Your task to perform on an android device: toggle location history Image 0: 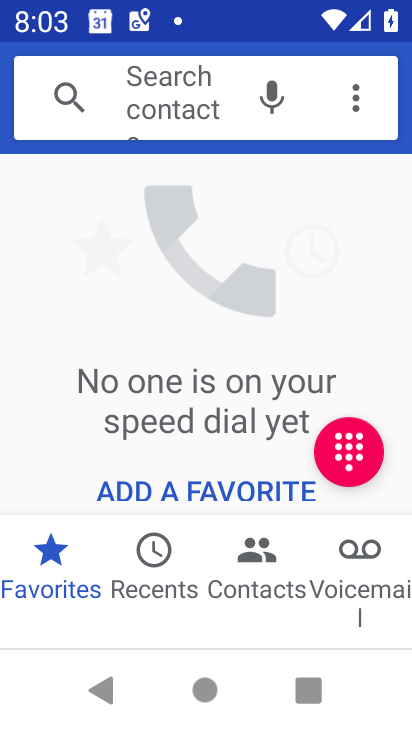
Step 0: press home button
Your task to perform on an android device: toggle location history Image 1: 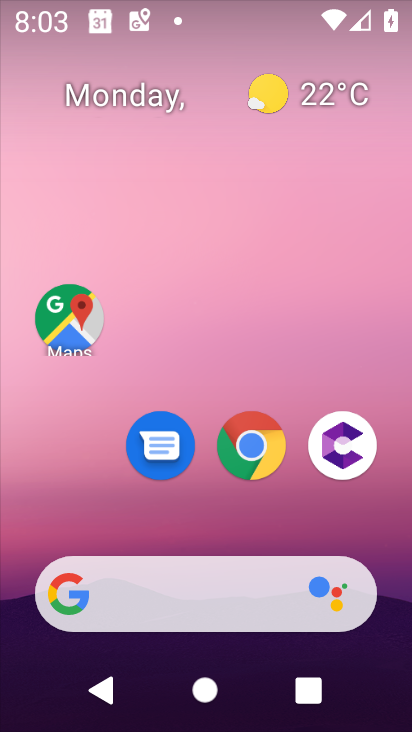
Step 1: drag from (171, 531) to (224, 159)
Your task to perform on an android device: toggle location history Image 2: 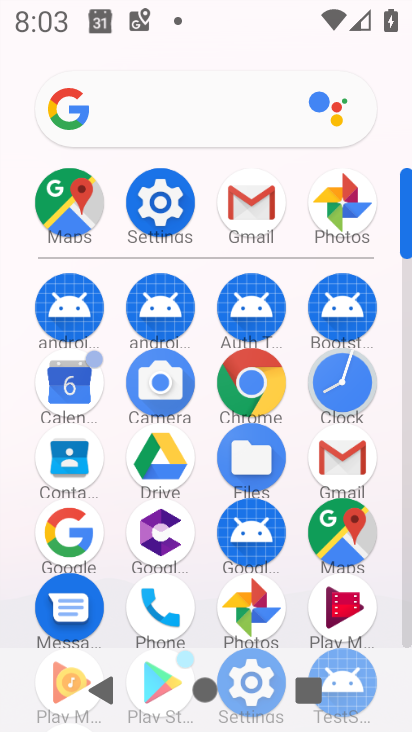
Step 2: click (152, 198)
Your task to perform on an android device: toggle location history Image 3: 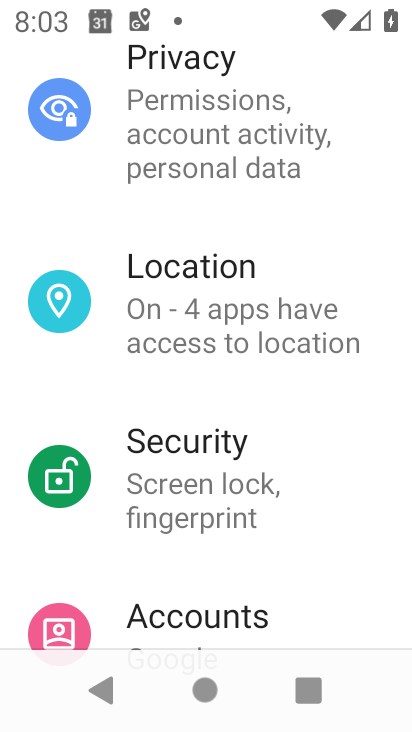
Step 3: click (218, 330)
Your task to perform on an android device: toggle location history Image 4: 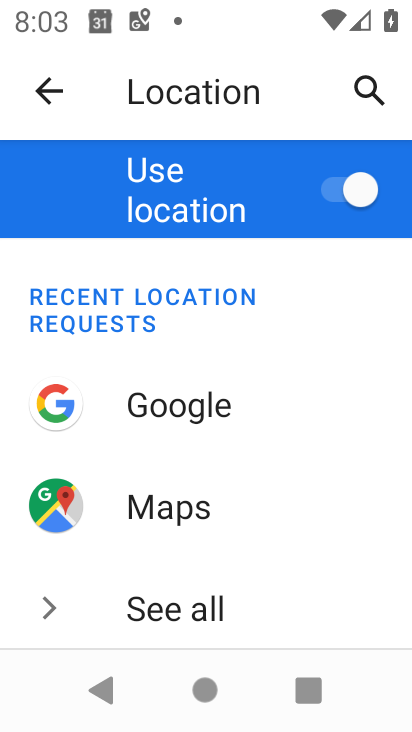
Step 4: drag from (344, 472) to (345, 1)
Your task to perform on an android device: toggle location history Image 5: 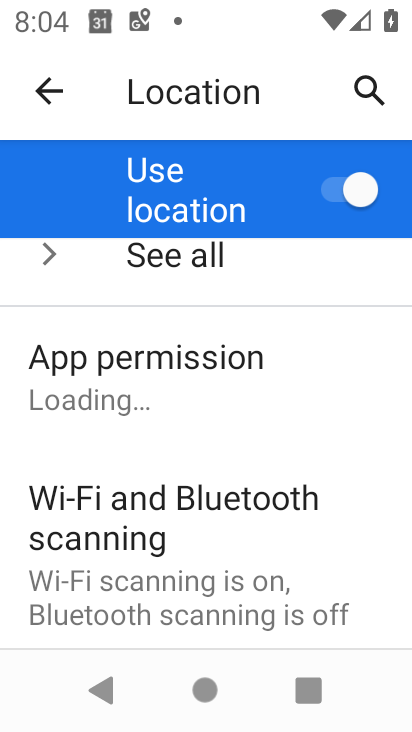
Step 5: drag from (272, 430) to (290, 150)
Your task to perform on an android device: toggle location history Image 6: 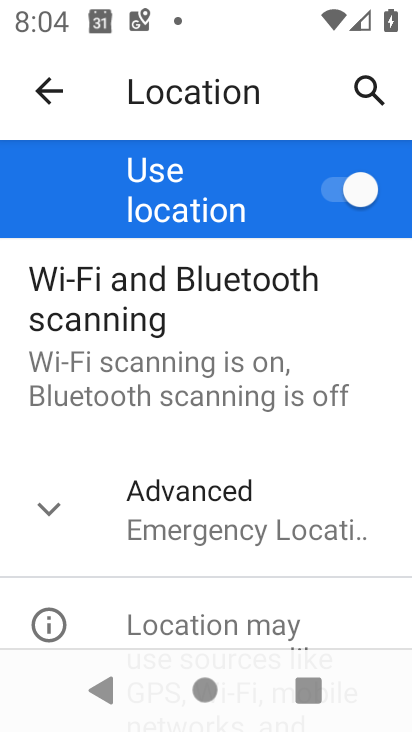
Step 6: click (191, 514)
Your task to perform on an android device: toggle location history Image 7: 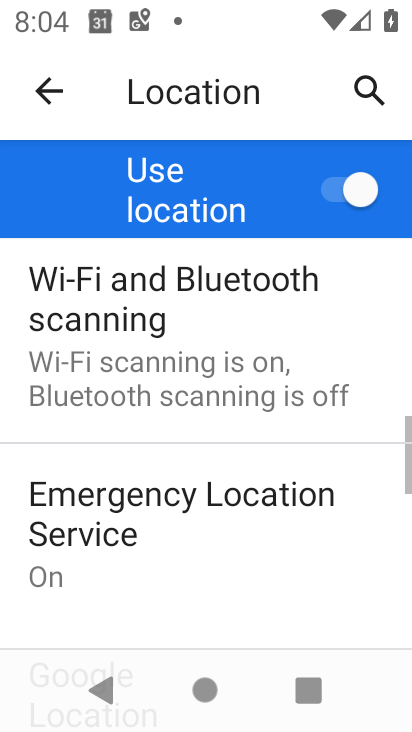
Step 7: drag from (231, 557) to (242, 195)
Your task to perform on an android device: toggle location history Image 8: 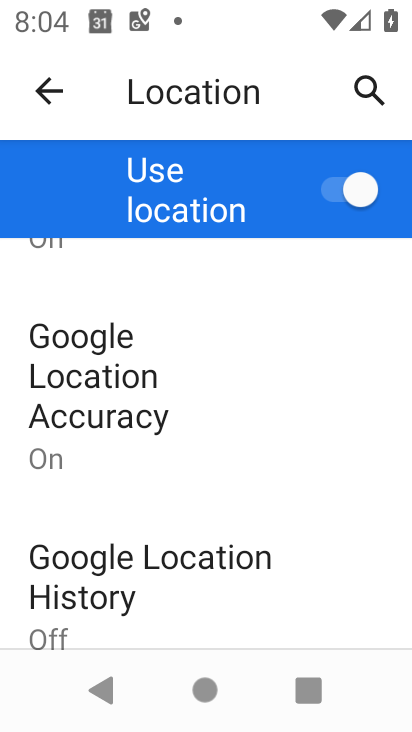
Step 8: click (243, 594)
Your task to perform on an android device: toggle location history Image 9: 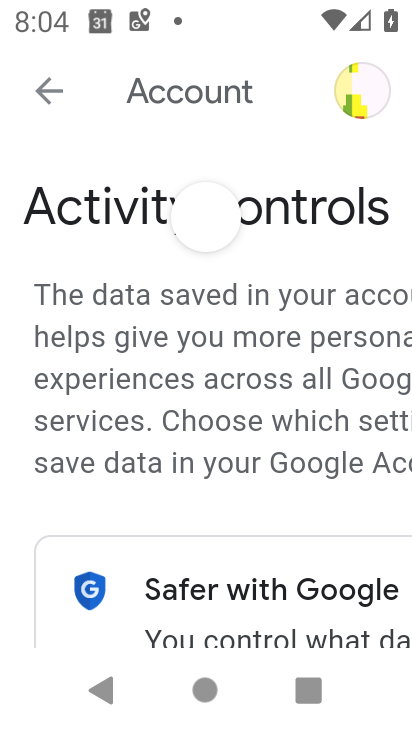
Step 9: drag from (345, 570) to (284, 11)
Your task to perform on an android device: toggle location history Image 10: 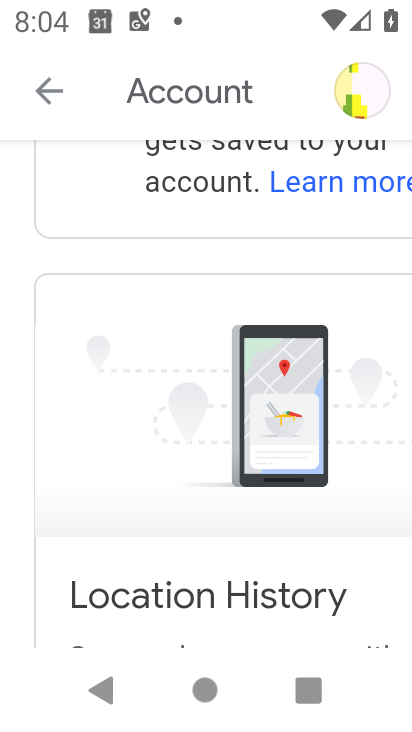
Step 10: drag from (381, 560) to (20, 448)
Your task to perform on an android device: toggle location history Image 11: 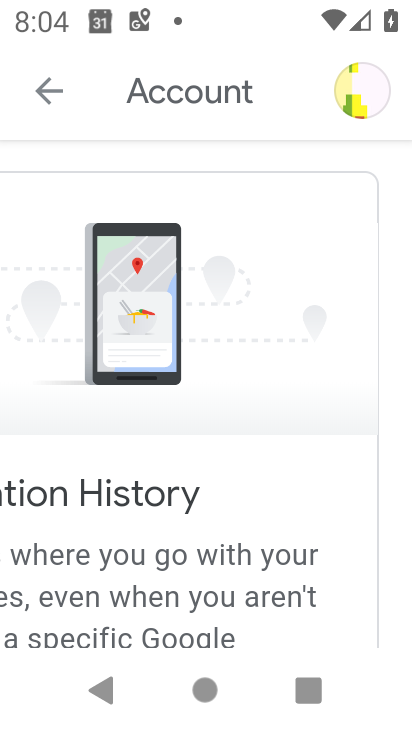
Step 11: drag from (309, 628) to (386, 30)
Your task to perform on an android device: toggle location history Image 12: 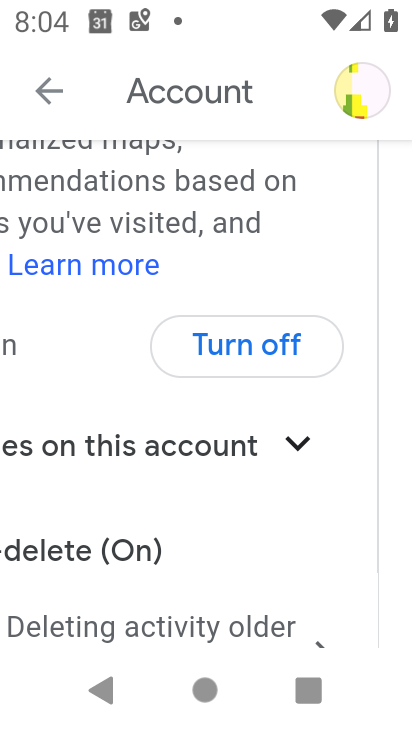
Step 12: drag from (285, 266) to (399, 262)
Your task to perform on an android device: toggle location history Image 13: 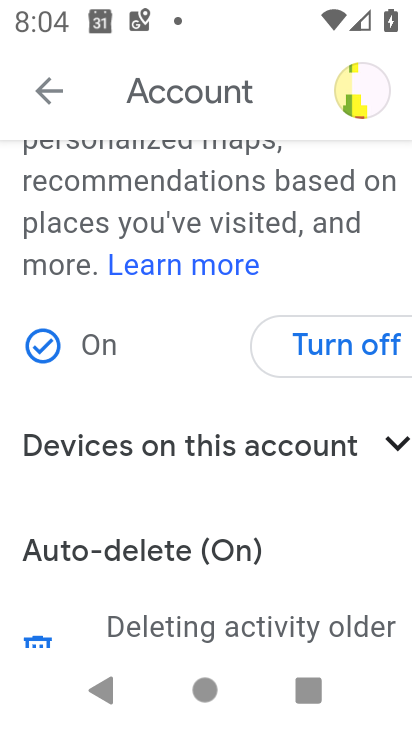
Step 13: click (323, 357)
Your task to perform on an android device: toggle location history Image 14: 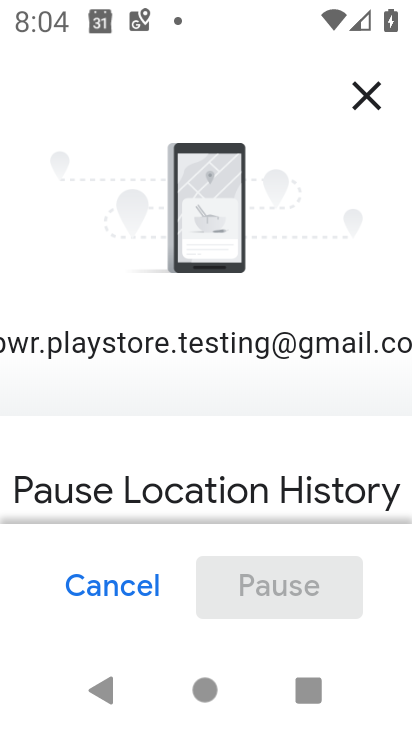
Step 14: click (270, 598)
Your task to perform on an android device: toggle location history Image 15: 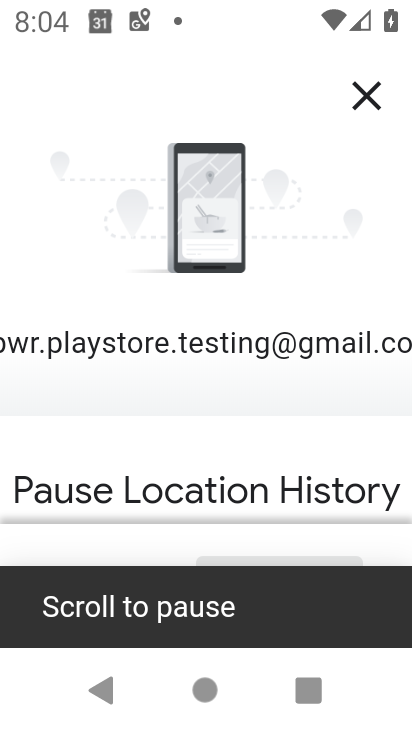
Step 15: click (260, 448)
Your task to perform on an android device: toggle location history Image 16: 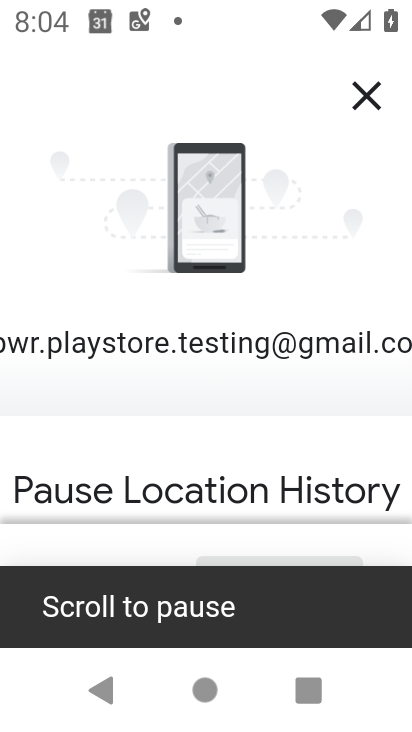
Step 16: drag from (259, 424) to (237, 19)
Your task to perform on an android device: toggle location history Image 17: 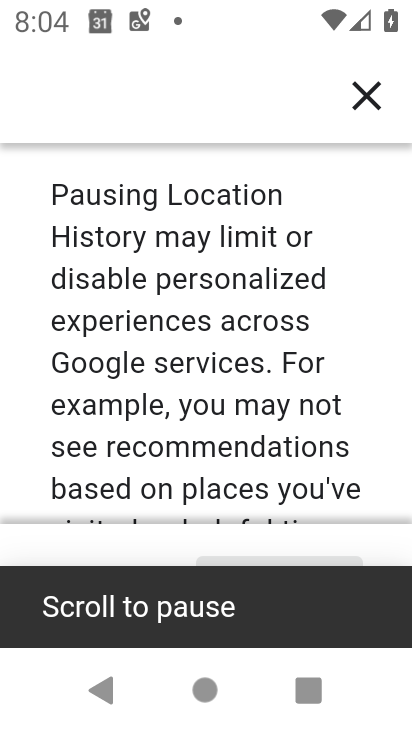
Step 17: drag from (366, 504) to (371, 15)
Your task to perform on an android device: toggle location history Image 18: 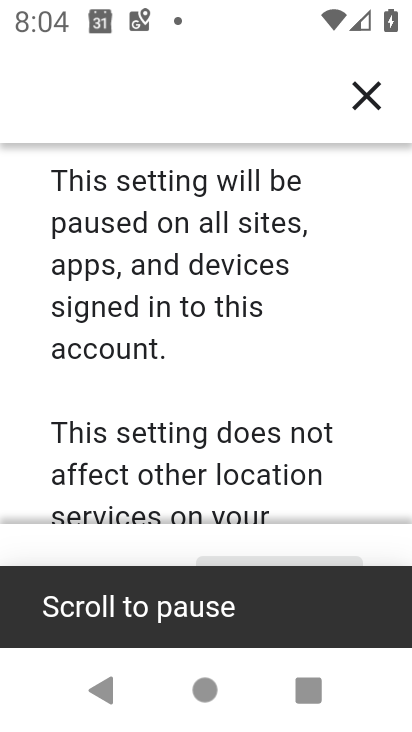
Step 18: drag from (382, 475) to (407, 233)
Your task to perform on an android device: toggle location history Image 19: 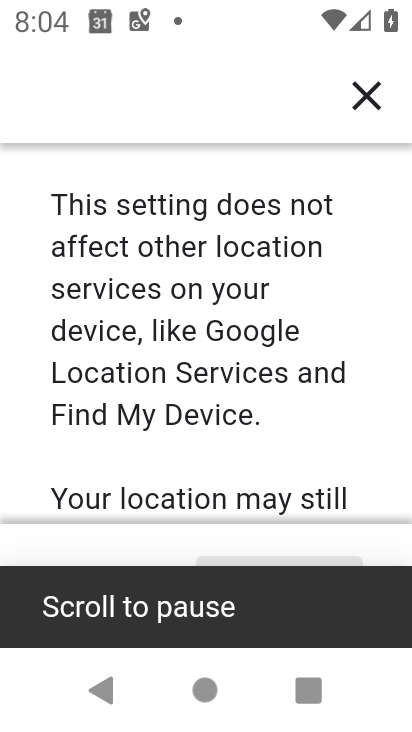
Step 19: drag from (391, 476) to (412, 34)
Your task to perform on an android device: toggle location history Image 20: 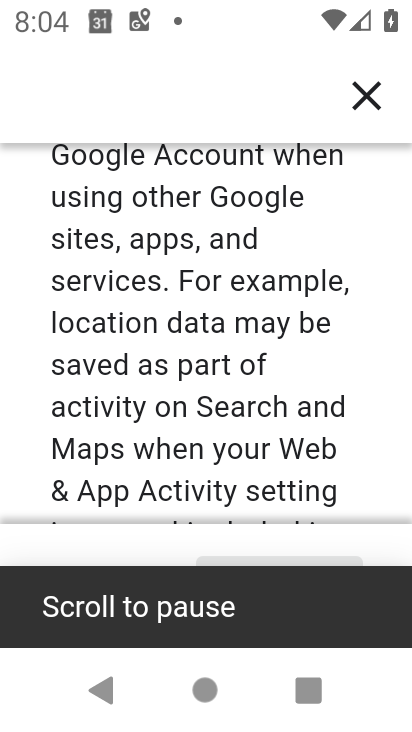
Step 20: drag from (375, 485) to (372, 15)
Your task to perform on an android device: toggle location history Image 21: 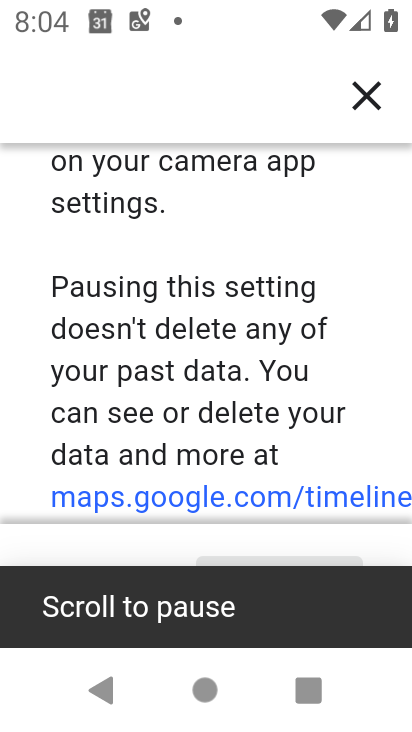
Step 21: drag from (382, 425) to (397, 0)
Your task to perform on an android device: toggle location history Image 22: 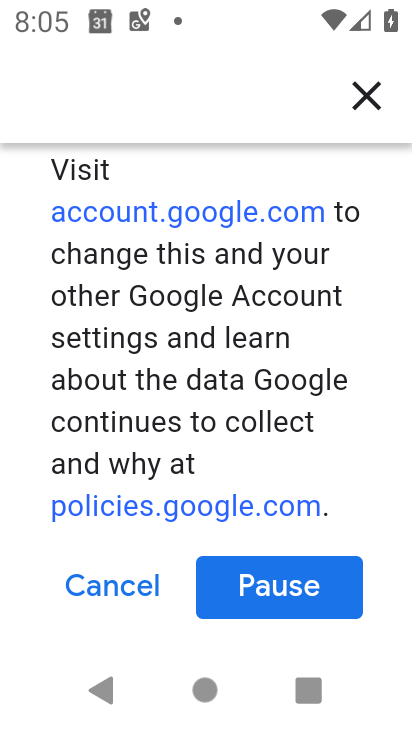
Step 22: click (238, 594)
Your task to perform on an android device: toggle location history Image 23: 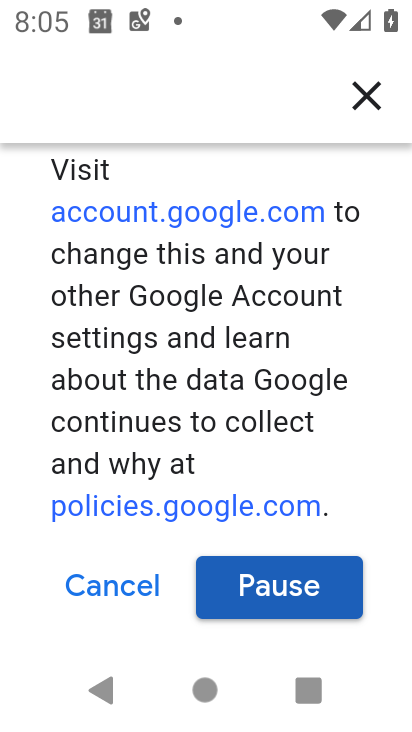
Step 23: click (241, 584)
Your task to perform on an android device: toggle location history Image 24: 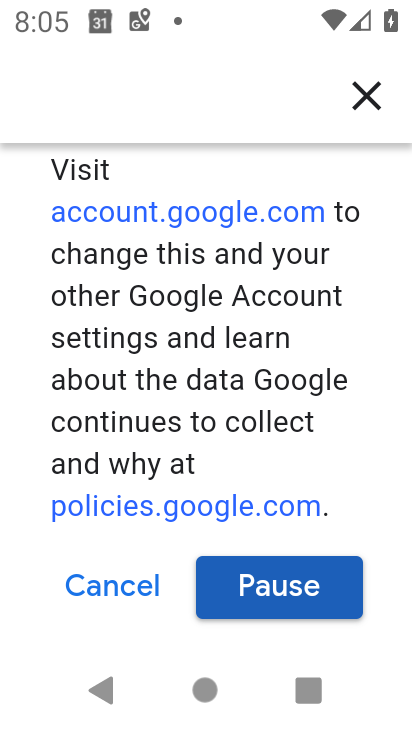
Step 24: click (300, 605)
Your task to perform on an android device: toggle location history Image 25: 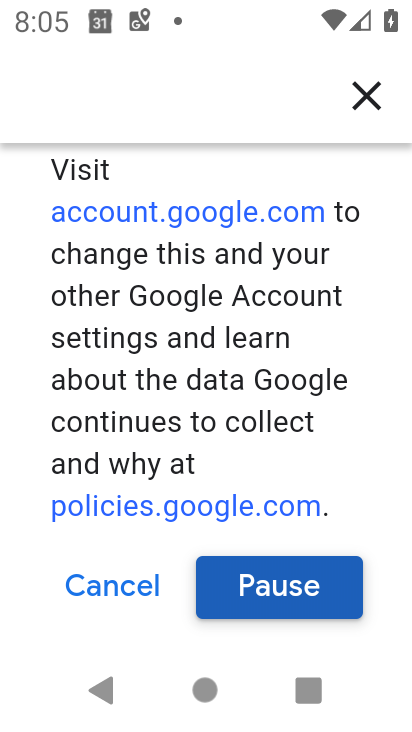
Step 25: click (303, 590)
Your task to perform on an android device: toggle location history Image 26: 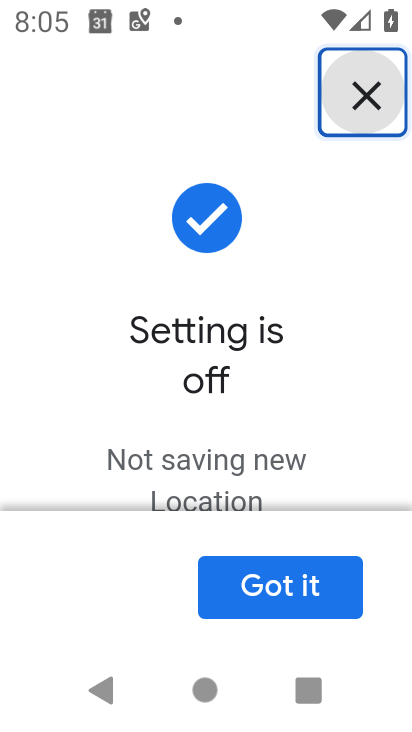
Step 26: click (313, 583)
Your task to perform on an android device: toggle location history Image 27: 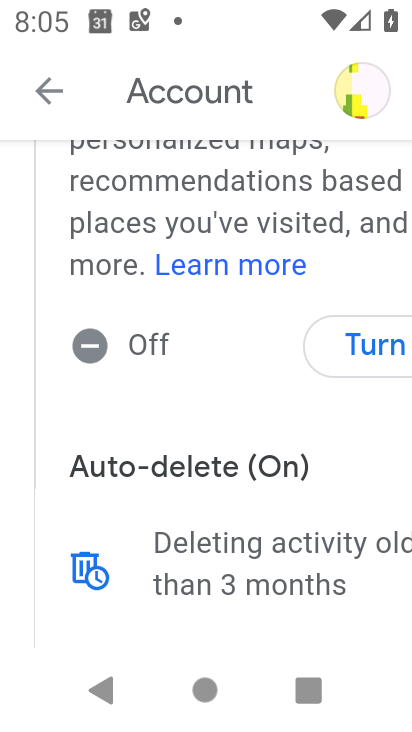
Step 27: task complete